Your task to perform on an android device: Go to settings Image 0: 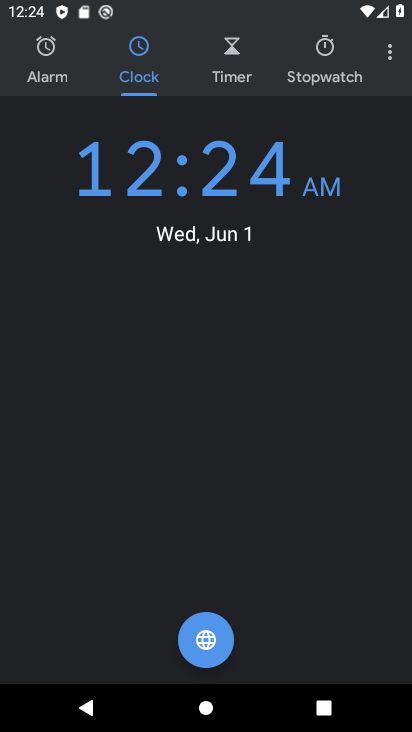
Step 0: press home button
Your task to perform on an android device: Go to settings Image 1: 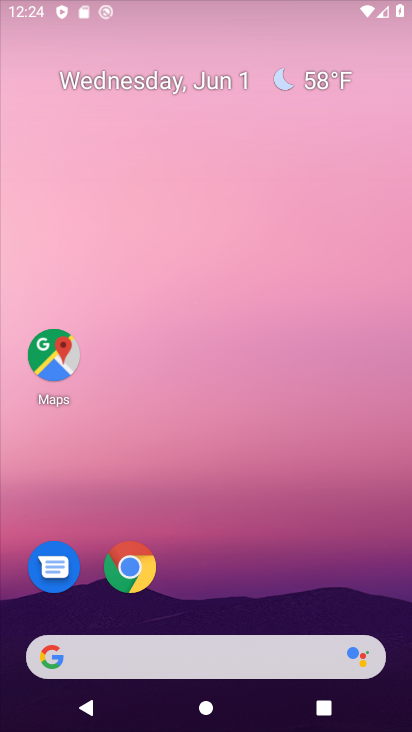
Step 1: drag from (238, 584) to (303, 46)
Your task to perform on an android device: Go to settings Image 2: 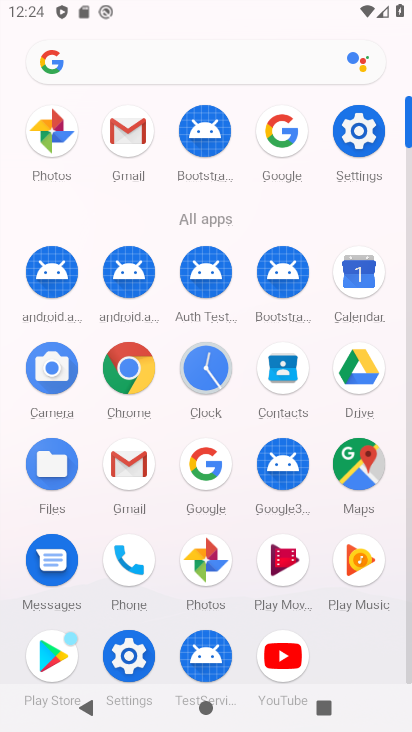
Step 2: click (363, 135)
Your task to perform on an android device: Go to settings Image 3: 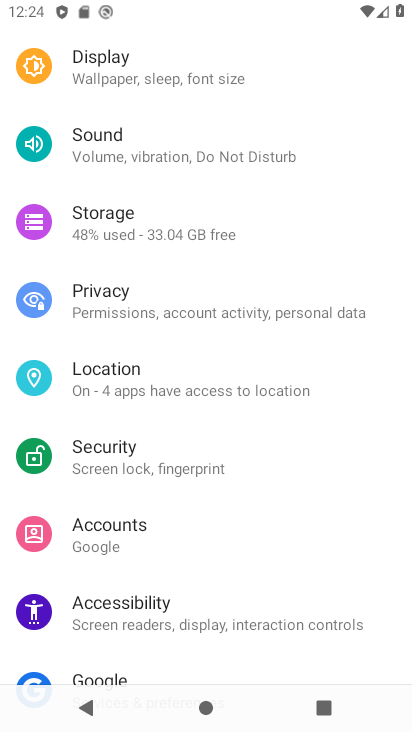
Step 3: task complete